Your task to perform on an android device: change timer sound Image 0: 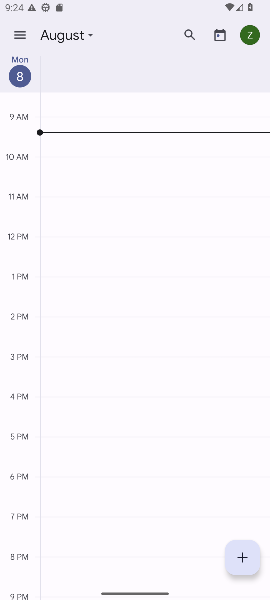
Step 0: press home button
Your task to perform on an android device: change timer sound Image 1: 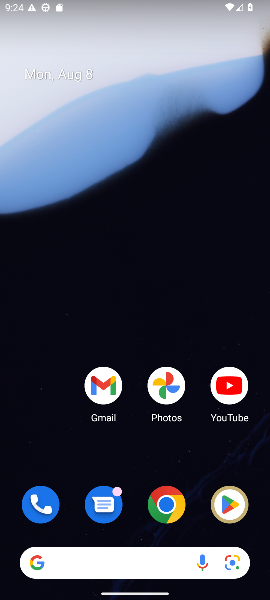
Step 1: drag from (141, 438) to (174, 110)
Your task to perform on an android device: change timer sound Image 2: 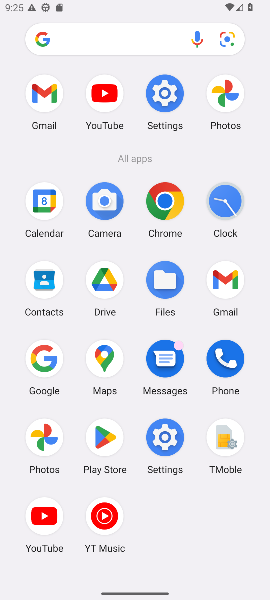
Step 2: click (226, 193)
Your task to perform on an android device: change timer sound Image 3: 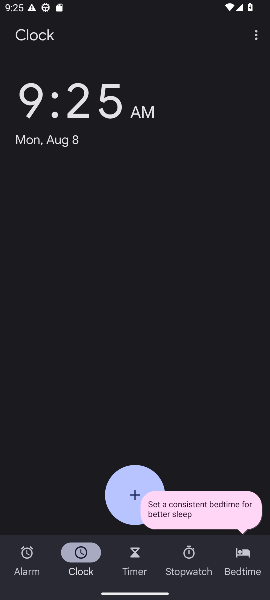
Step 3: click (257, 41)
Your task to perform on an android device: change timer sound Image 4: 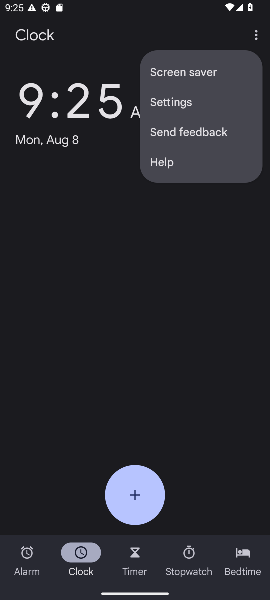
Step 4: click (194, 110)
Your task to perform on an android device: change timer sound Image 5: 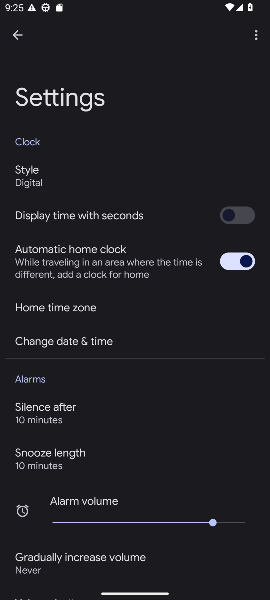
Step 5: drag from (134, 484) to (142, 352)
Your task to perform on an android device: change timer sound Image 6: 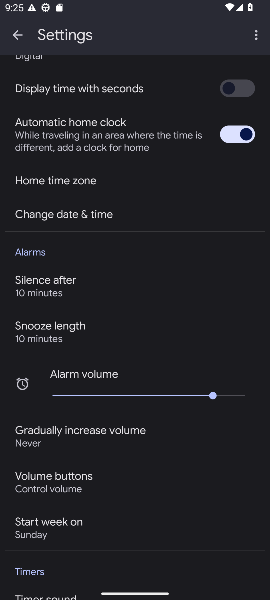
Step 6: drag from (78, 503) to (80, 299)
Your task to perform on an android device: change timer sound Image 7: 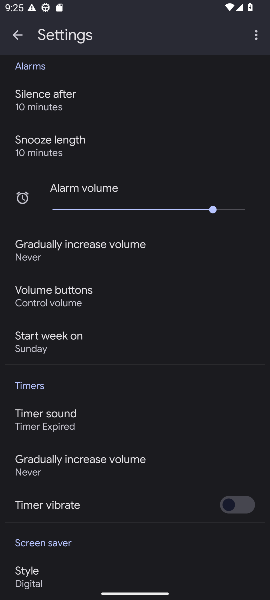
Step 7: click (66, 428)
Your task to perform on an android device: change timer sound Image 8: 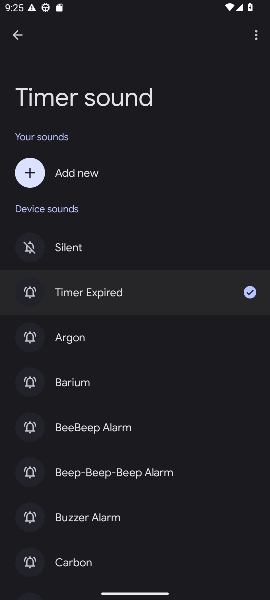
Step 8: click (87, 349)
Your task to perform on an android device: change timer sound Image 9: 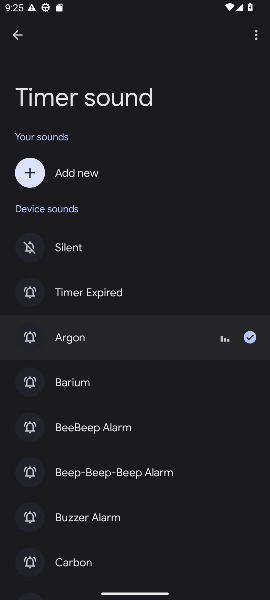
Step 9: task complete